Your task to perform on an android device: turn off wifi Image 0: 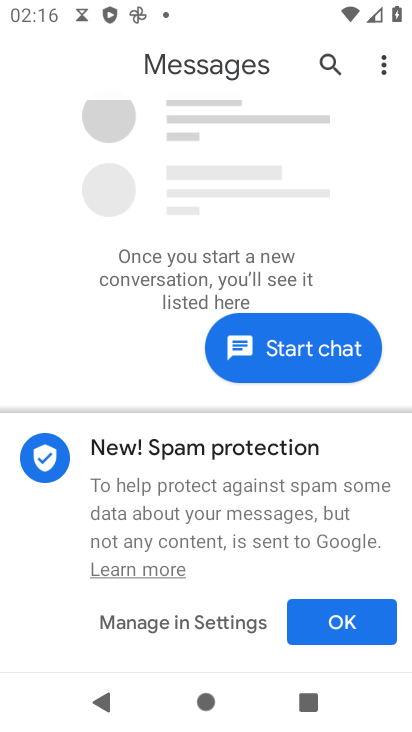
Step 0: press home button
Your task to perform on an android device: turn off wifi Image 1: 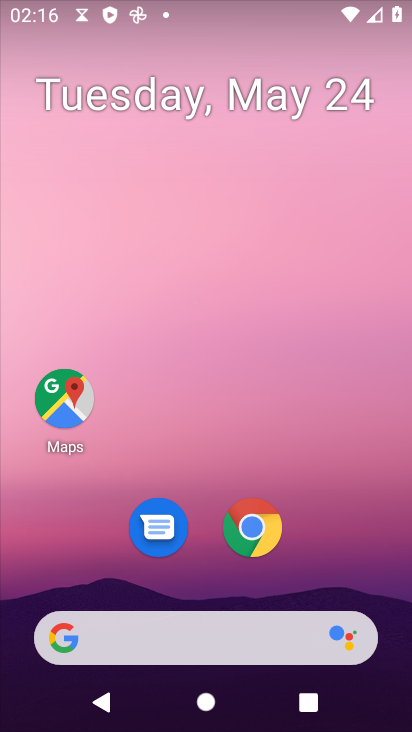
Step 1: drag from (188, 642) to (300, 141)
Your task to perform on an android device: turn off wifi Image 2: 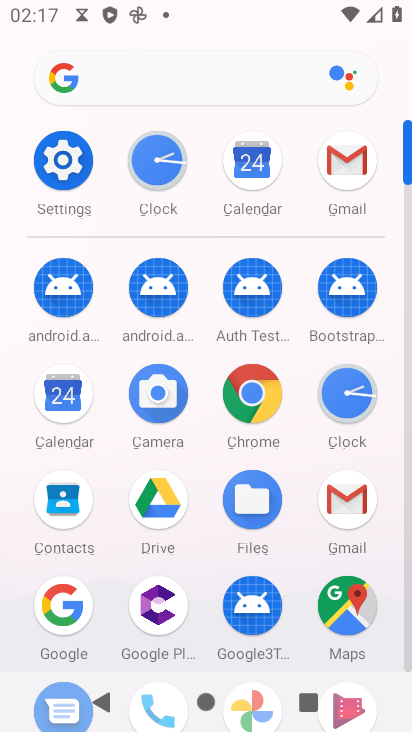
Step 2: click (69, 170)
Your task to perform on an android device: turn off wifi Image 3: 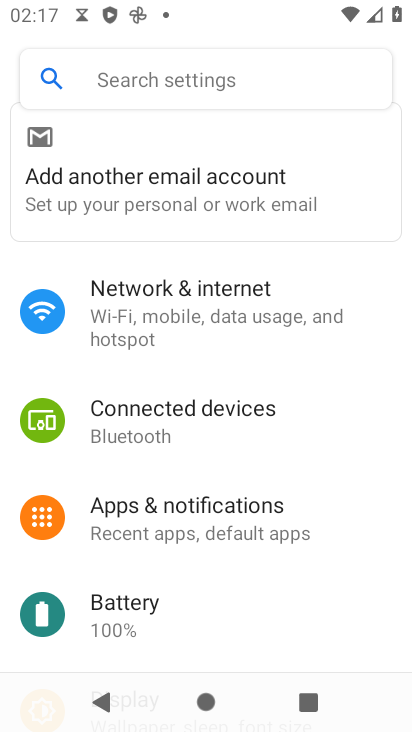
Step 3: click (214, 285)
Your task to perform on an android device: turn off wifi Image 4: 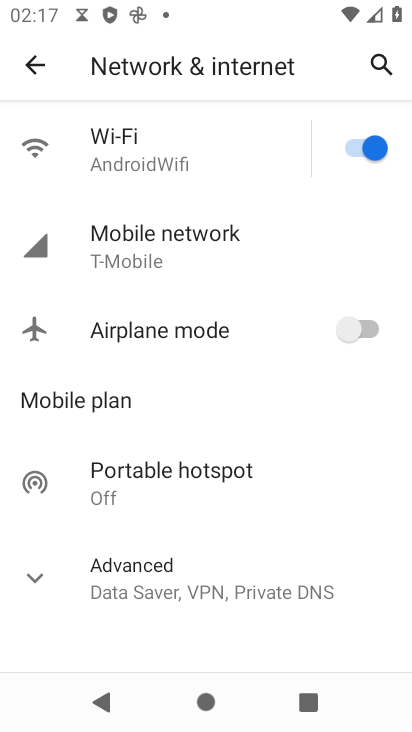
Step 4: click (363, 140)
Your task to perform on an android device: turn off wifi Image 5: 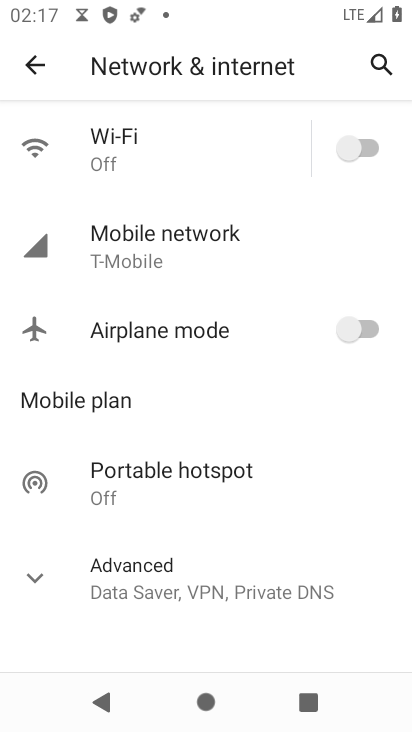
Step 5: task complete